Your task to perform on an android device: change the clock display to digital Image 0: 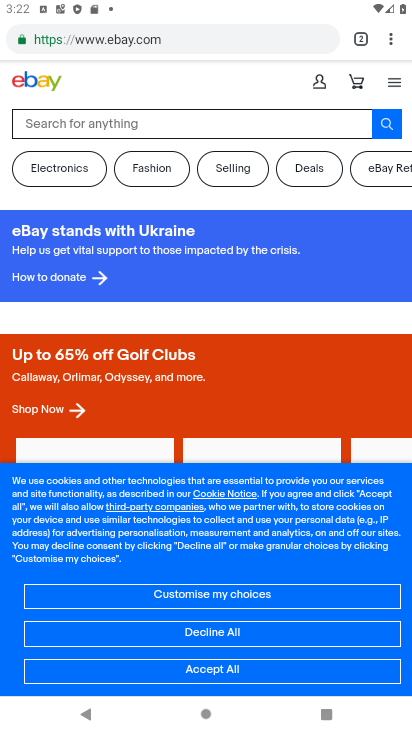
Step 0: press home button
Your task to perform on an android device: change the clock display to digital Image 1: 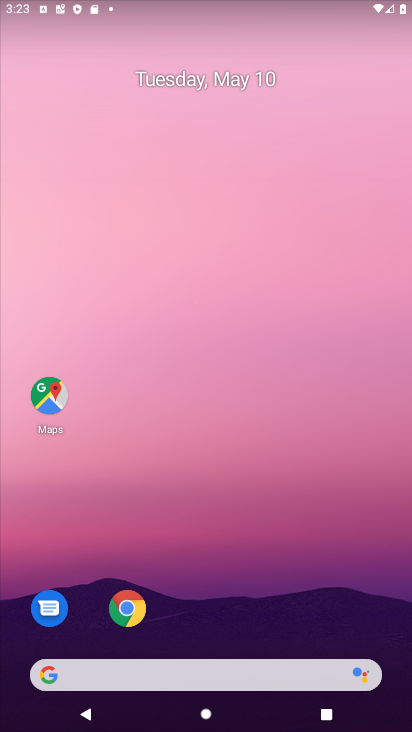
Step 1: drag from (363, 575) to (231, 125)
Your task to perform on an android device: change the clock display to digital Image 2: 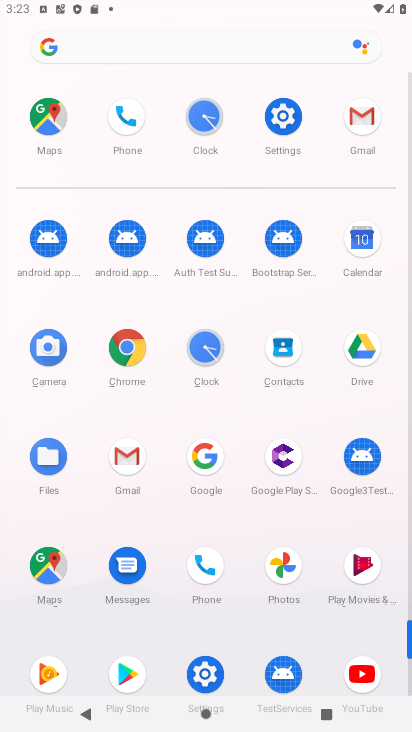
Step 2: click (204, 344)
Your task to perform on an android device: change the clock display to digital Image 3: 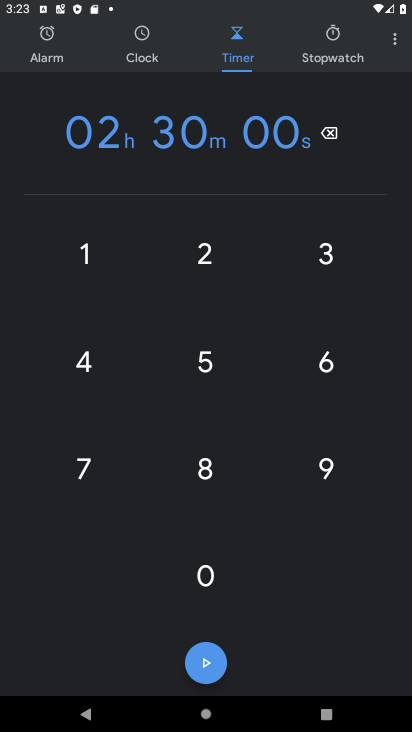
Step 3: click (394, 41)
Your task to perform on an android device: change the clock display to digital Image 4: 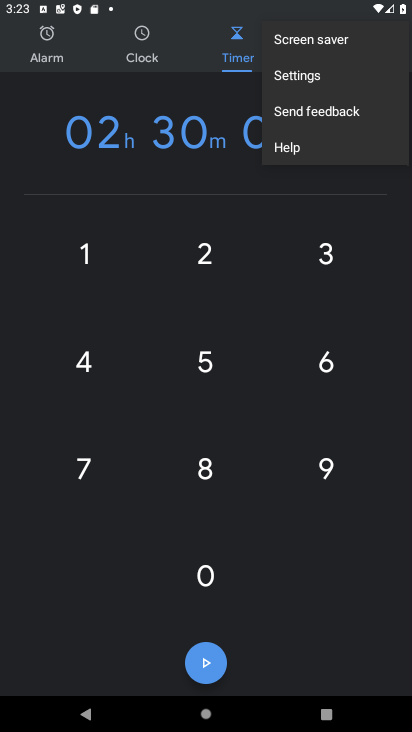
Step 4: click (294, 76)
Your task to perform on an android device: change the clock display to digital Image 5: 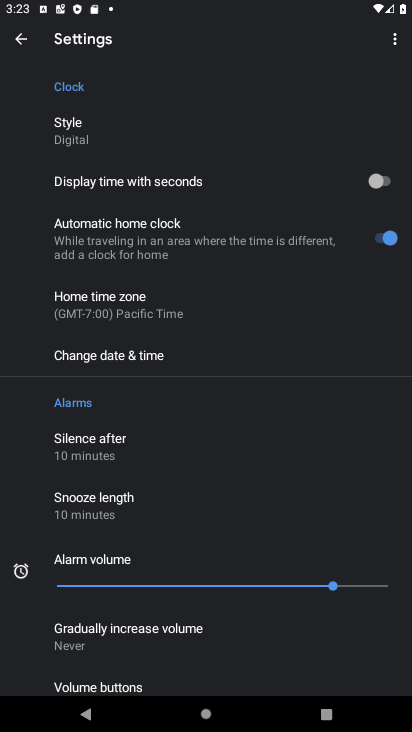
Step 5: task complete